Your task to perform on an android device: install app "NewsBreak: Local News & Alerts" Image 0: 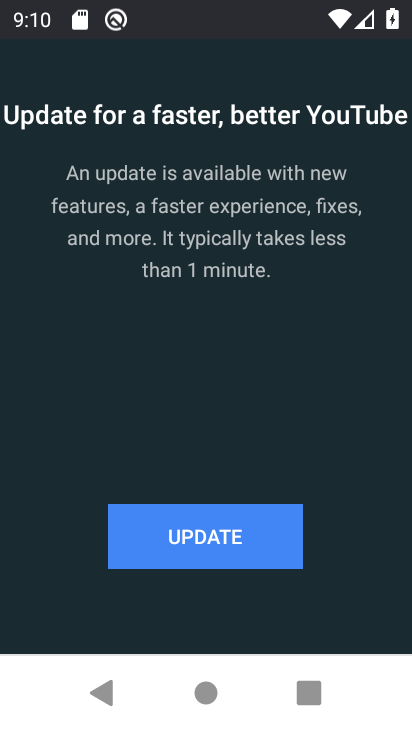
Step 0: press home button
Your task to perform on an android device: install app "NewsBreak: Local News & Alerts" Image 1: 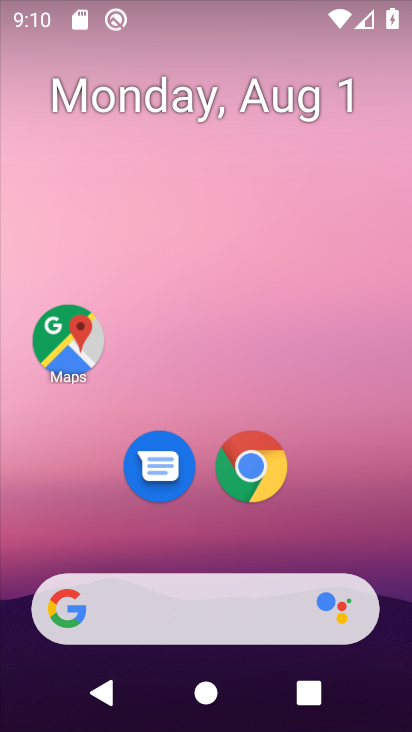
Step 1: drag from (249, 670) to (236, 141)
Your task to perform on an android device: install app "NewsBreak: Local News & Alerts" Image 2: 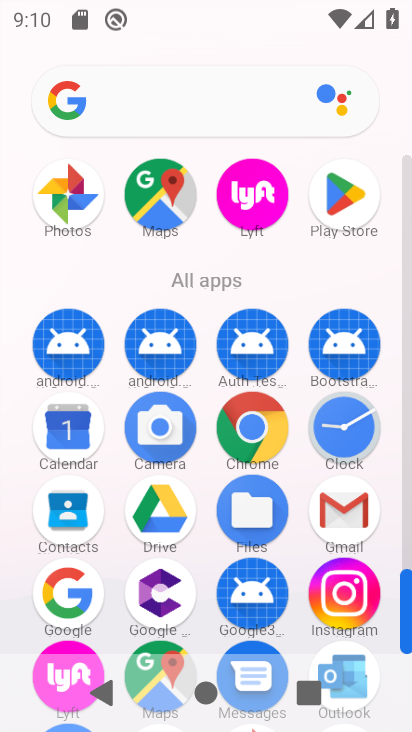
Step 2: click (350, 195)
Your task to perform on an android device: install app "NewsBreak: Local News & Alerts" Image 3: 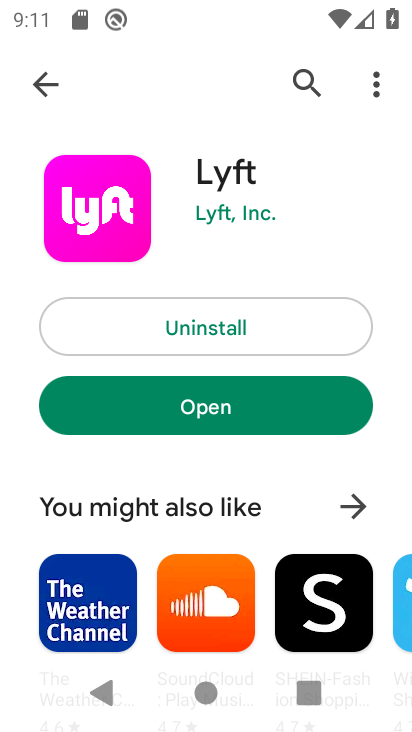
Step 3: click (303, 77)
Your task to perform on an android device: install app "NewsBreak: Local News & Alerts" Image 4: 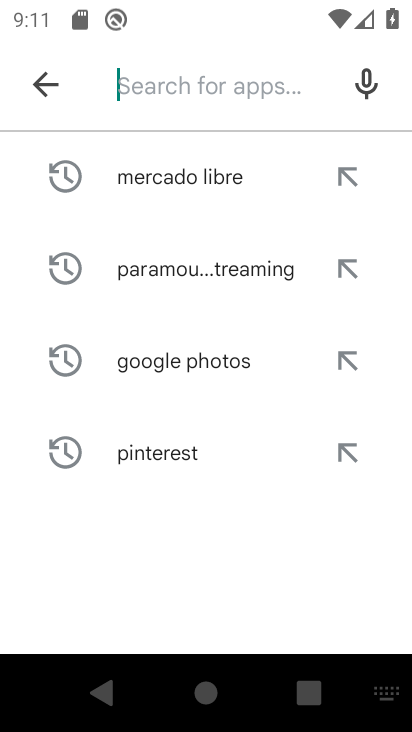
Step 4: type "NewsBreak: Local News & Alerts"
Your task to perform on an android device: install app "NewsBreak: Local News & Alerts" Image 5: 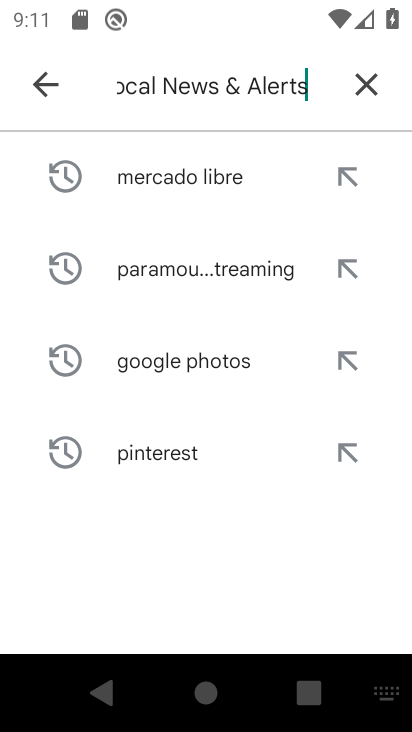
Step 5: type ""
Your task to perform on an android device: install app "NewsBreak: Local News & Alerts" Image 6: 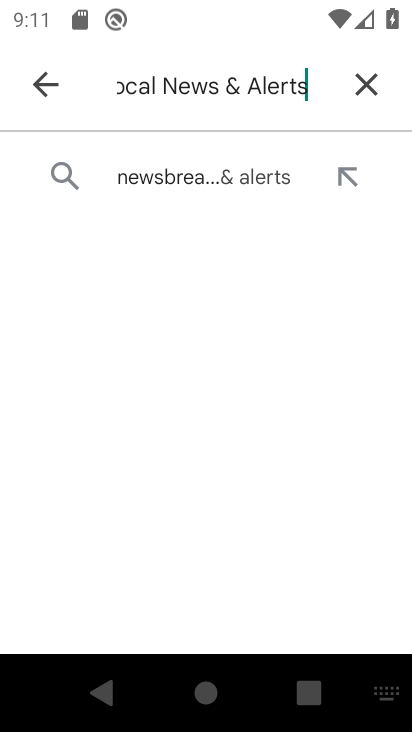
Step 6: click (216, 180)
Your task to perform on an android device: install app "NewsBreak: Local News & Alerts" Image 7: 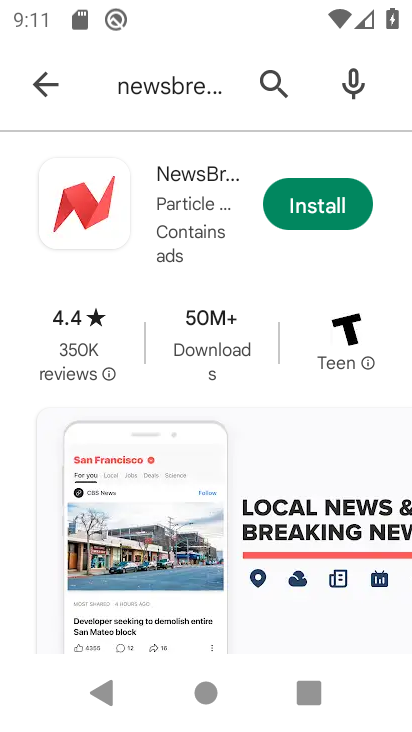
Step 7: click (322, 209)
Your task to perform on an android device: install app "NewsBreak: Local News & Alerts" Image 8: 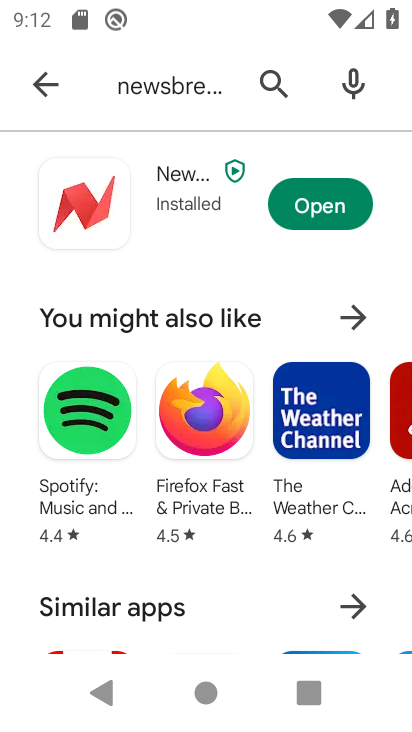
Step 8: task complete